Your task to perform on an android device: Open Chrome and go to settings Image 0: 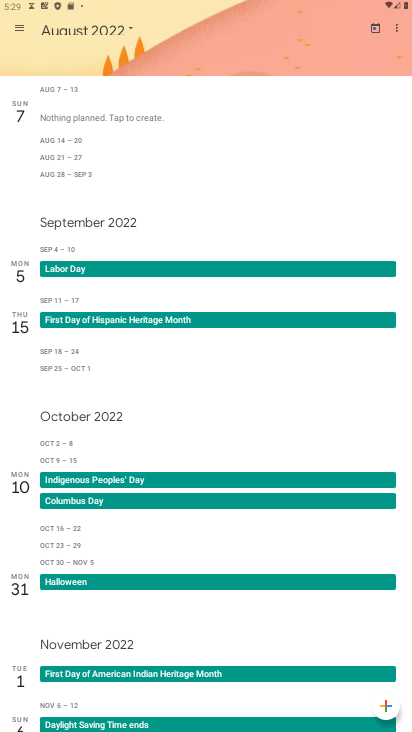
Step 0: press home button
Your task to perform on an android device: Open Chrome and go to settings Image 1: 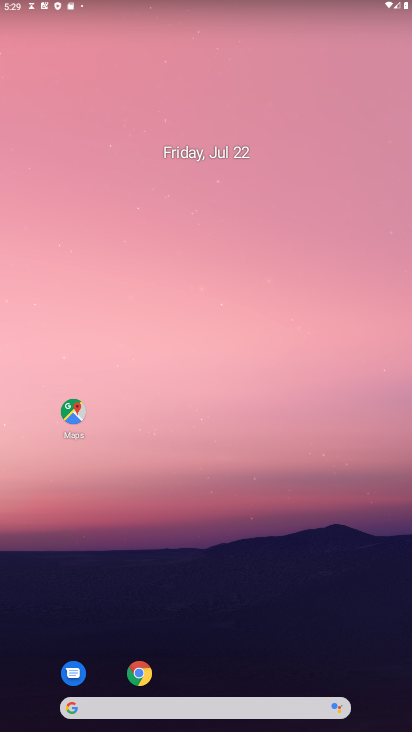
Step 1: drag from (243, 647) to (239, 195)
Your task to perform on an android device: Open Chrome and go to settings Image 2: 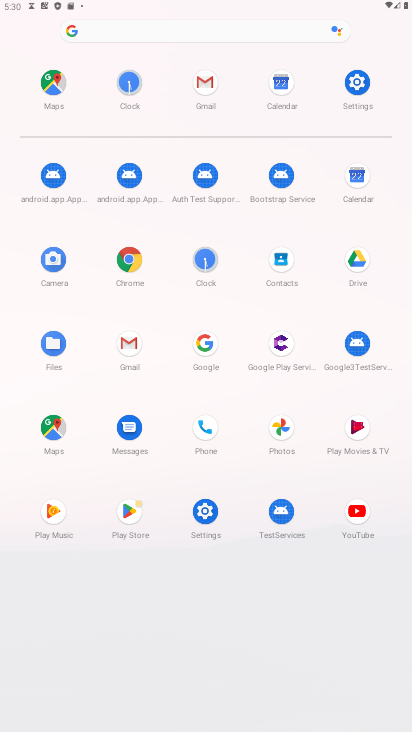
Step 2: click (131, 253)
Your task to perform on an android device: Open Chrome and go to settings Image 3: 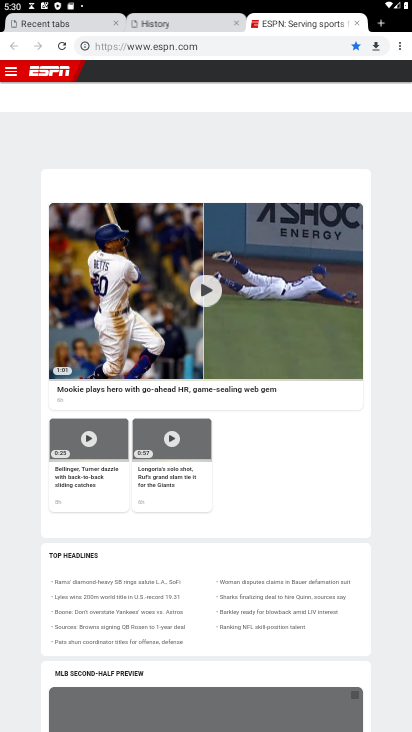
Step 3: task complete